Your task to perform on an android device: Search for the new nintendo switch on Walmart. Image 0: 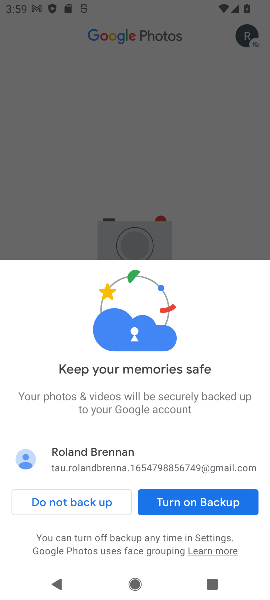
Step 0: press home button
Your task to perform on an android device: Search for the new nintendo switch on Walmart. Image 1: 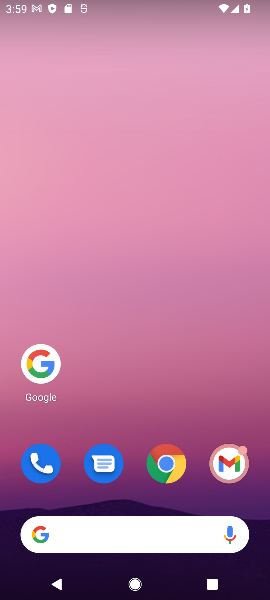
Step 1: click (45, 353)
Your task to perform on an android device: Search for the new nintendo switch on Walmart. Image 2: 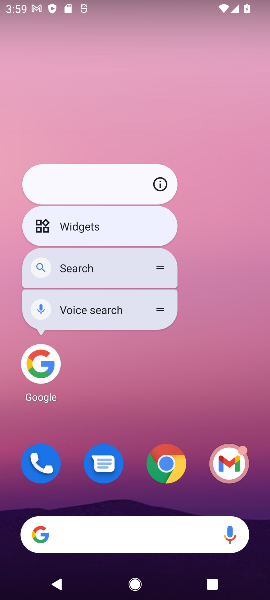
Step 2: click (103, 353)
Your task to perform on an android device: Search for the new nintendo switch on Walmart. Image 3: 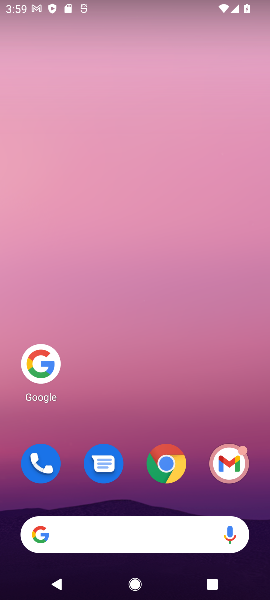
Step 3: click (40, 369)
Your task to perform on an android device: Search for the new nintendo switch on Walmart. Image 4: 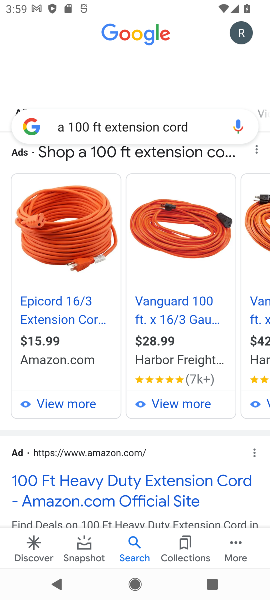
Step 4: click (198, 121)
Your task to perform on an android device: Search for the new nintendo switch on Walmart. Image 5: 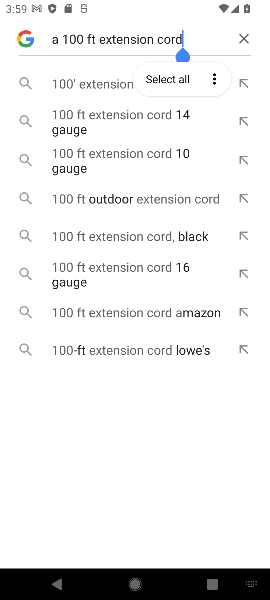
Step 5: click (246, 33)
Your task to perform on an android device: Search for the new nintendo switch on Walmart. Image 6: 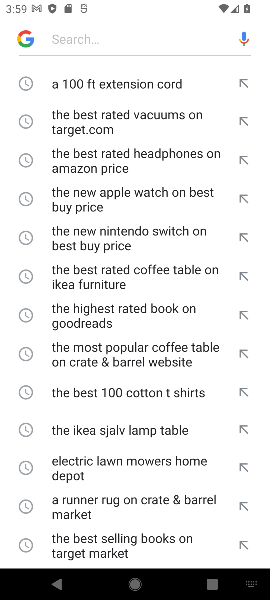
Step 6: click (142, 36)
Your task to perform on an android device: Search for the new nintendo switch on Walmart. Image 7: 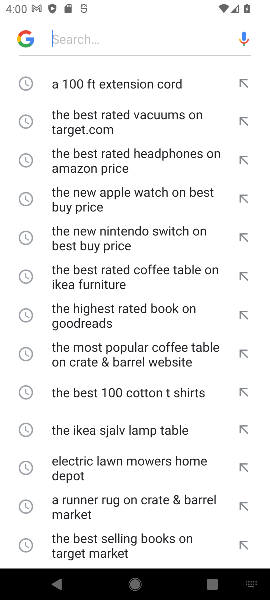
Step 7: type "the new nintendo switch on Walmart "
Your task to perform on an android device: Search for the new nintendo switch on Walmart. Image 8: 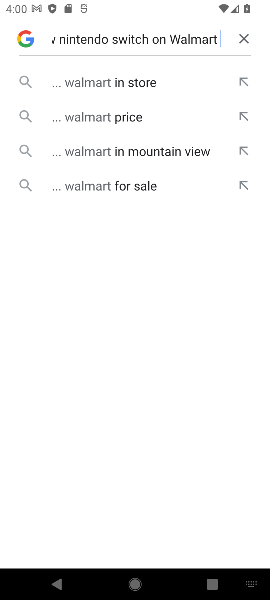
Step 8: click (71, 70)
Your task to perform on an android device: Search for the new nintendo switch on Walmart. Image 9: 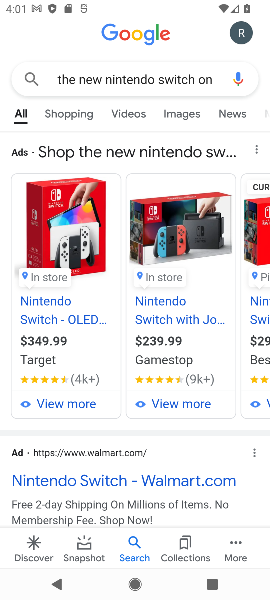
Step 9: task complete